Your task to perform on an android device: Go to Google maps Image 0: 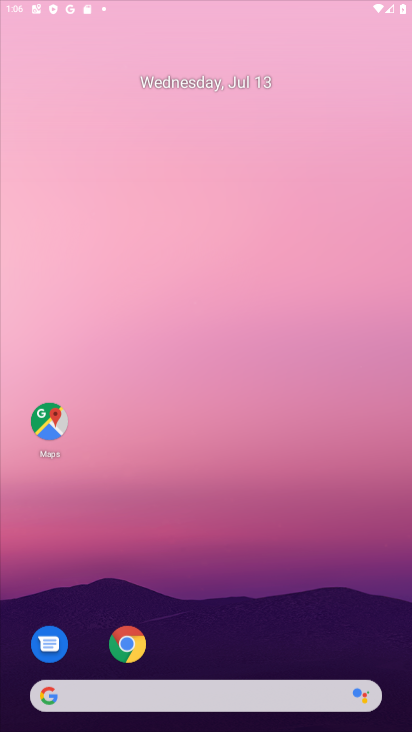
Step 0: click (182, 9)
Your task to perform on an android device: Go to Google maps Image 1: 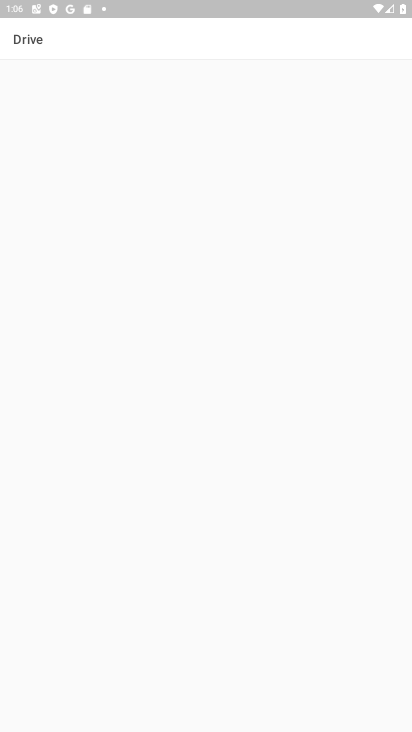
Step 1: press home button
Your task to perform on an android device: Go to Google maps Image 2: 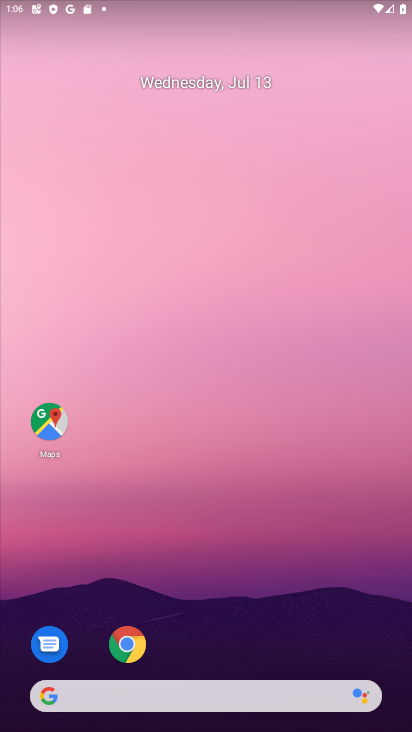
Step 2: drag from (267, 621) to (154, 2)
Your task to perform on an android device: Go to Google maps Image 3: 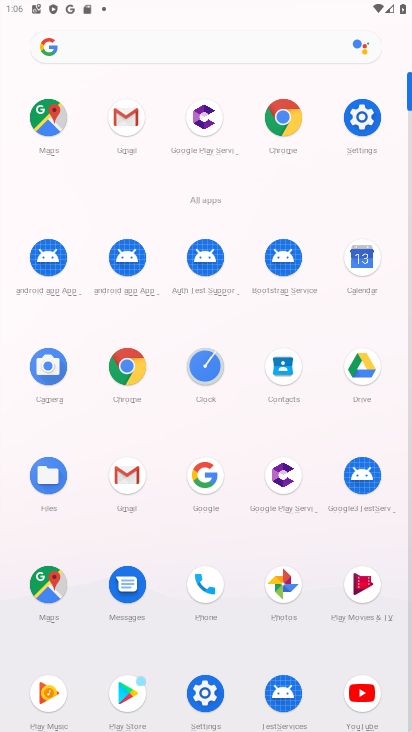
Step 3: click (50, 118)
Your task to perform on an android device: Go to Google maps Image 4: 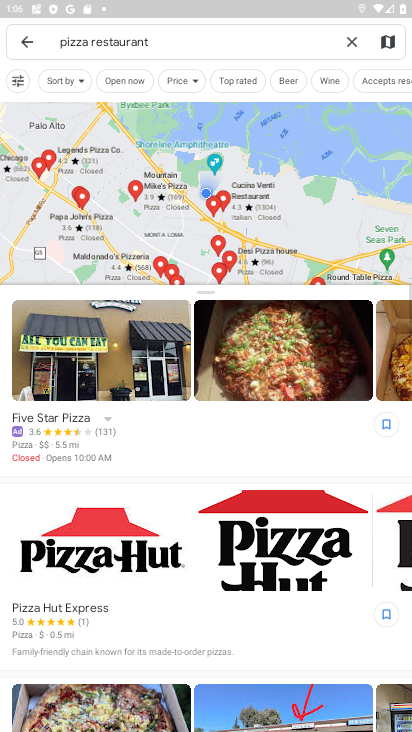
Step 4: task complete